Your task to perform on an android device: Is it going to rain tomorrow? Image 0: 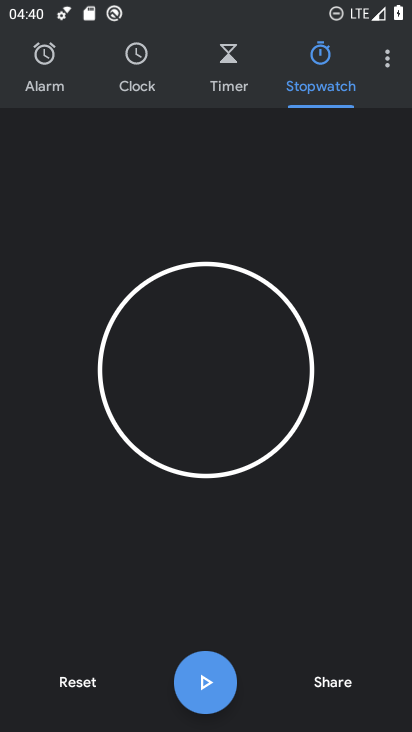
Step 0: press back button
Your task to perform on an android device: Is it going to rain tomorrow? Image 1: 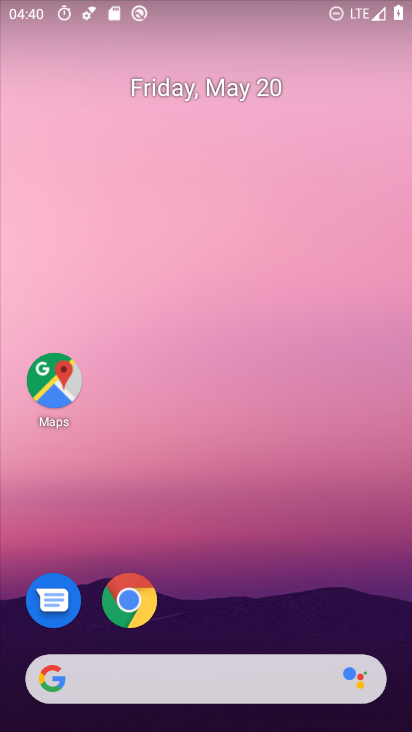
Step 1: drag from (208, 613) to (290, 28)
Your task to perform on an android device: Is it going to rain tomorrow? Image 2: 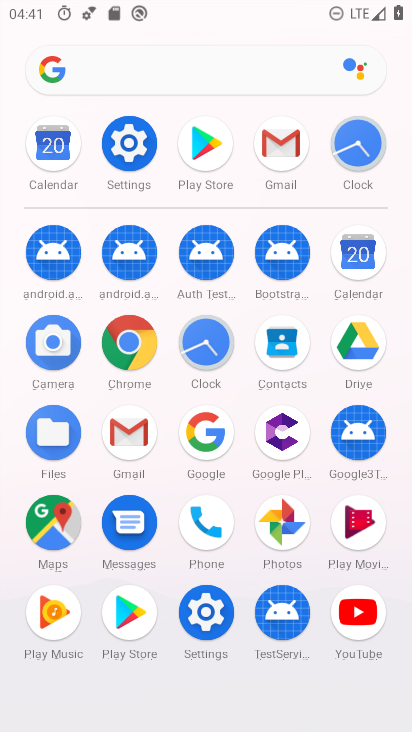
Step 2: click (147, 73)
Your task to perform on an android device: Is it going to rain tomorrow? Image 3: 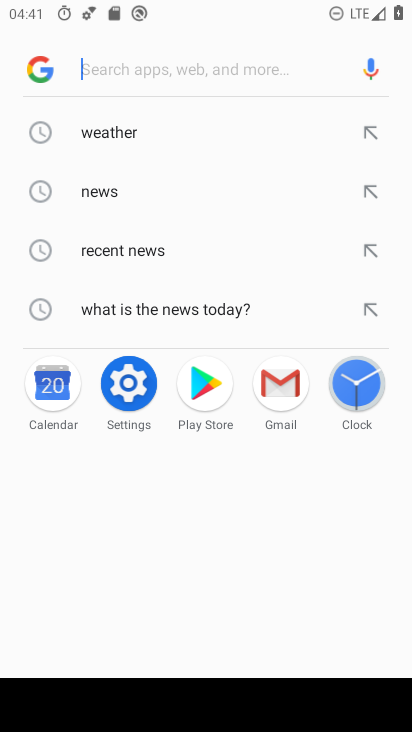
Step 3: click (86, 138)
Your task to perform on an android device: Is it going to rain tomorrow? Image 4: 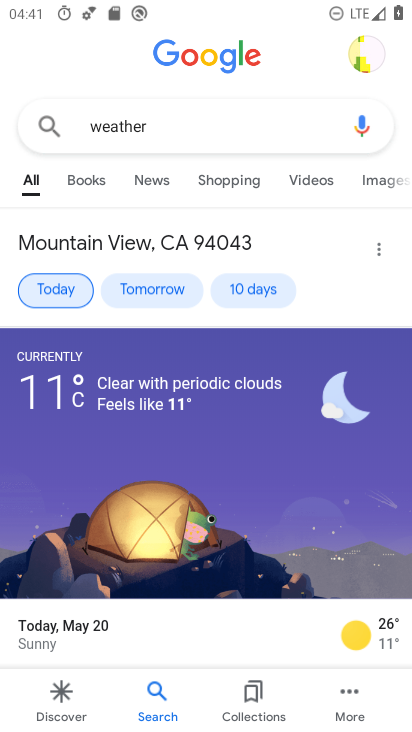
Step 4: click (141, 293)
Your task to perform on an android device: Is it going to rain tomorrow? Image 5: 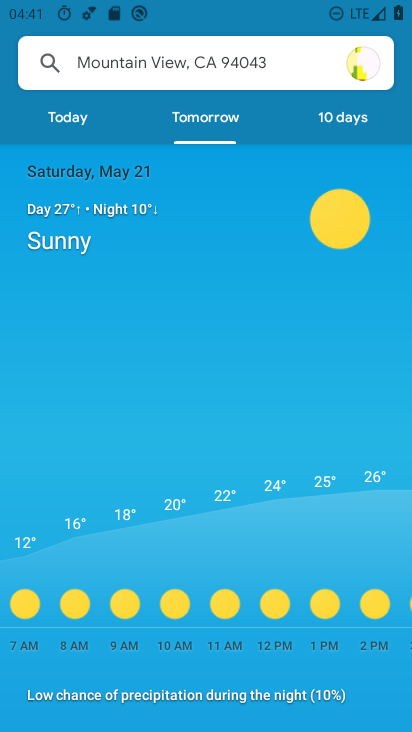
Step 5: task complete